Your task to perform on an android device: Open Reddit.com Image 0: 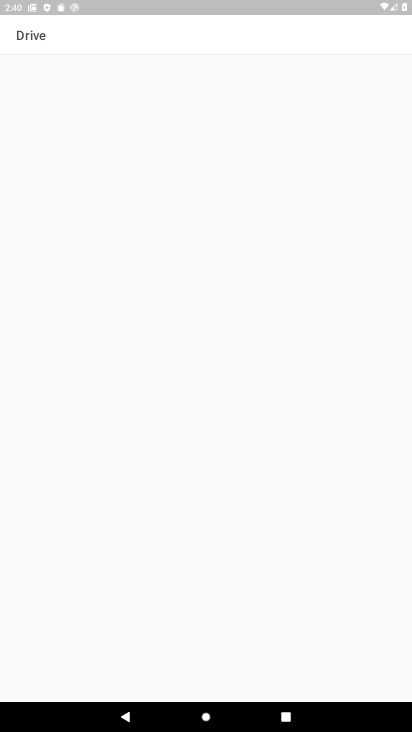
Step 0: press home button
Your task to perform on an android device: Open Reddit.com Image 1: 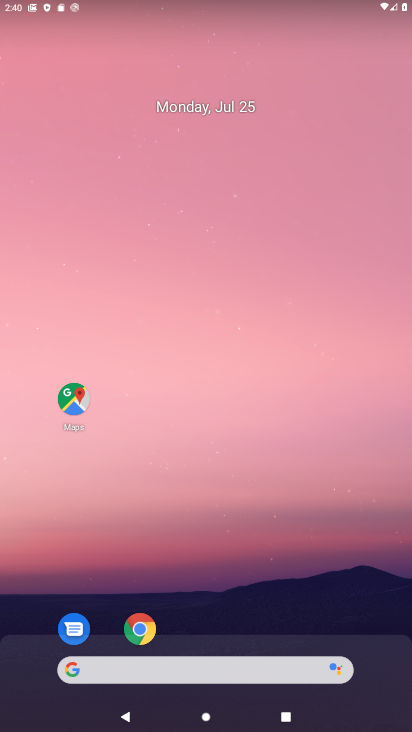
Step 1: click (140, 630)
Your task to perform on an android device: Open Reddit.com Image 2: 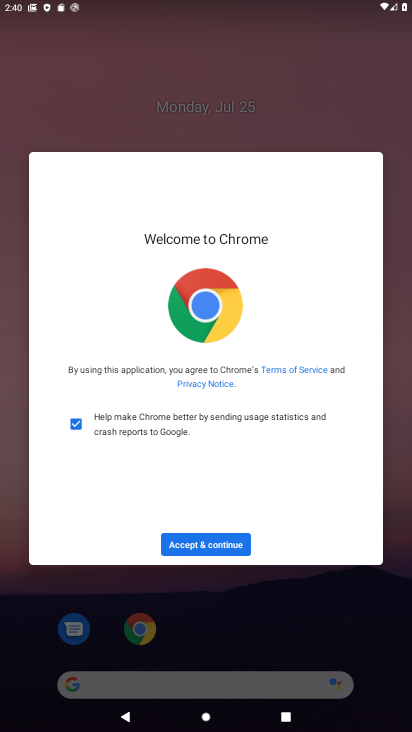
Step 2: click (204, 546)
Your task to perform on an android device: Open Reddit.com Image 3: 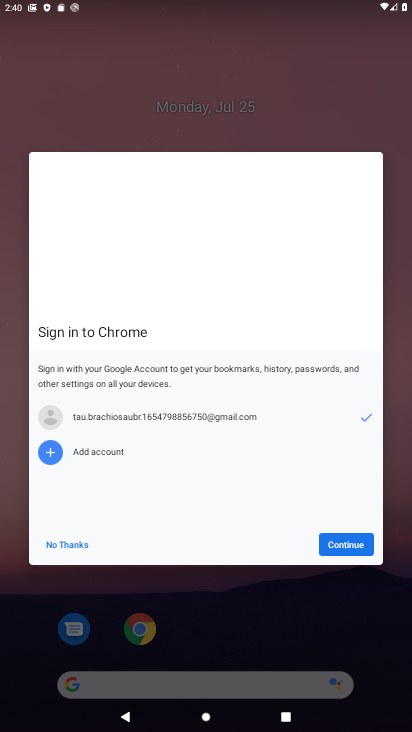
Step 3: click (334, 542)
Your task to perform on an android device: Open Reddit.com Image 4: 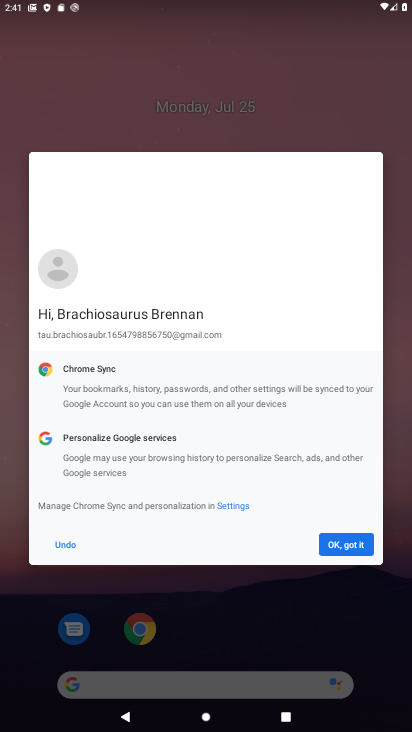
Step 4: click (354, 548)
Your task to perform on an android device: Open Reddit.com Image 5: 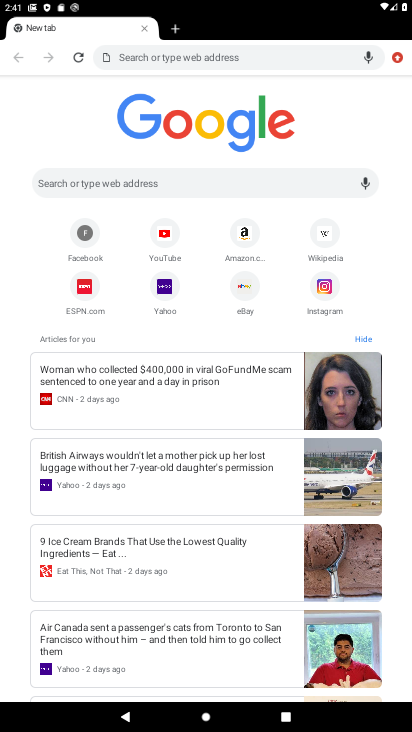
Step 5: click (222, 183)
Your task to perform on an android device: Open Reddit.com Image 6: 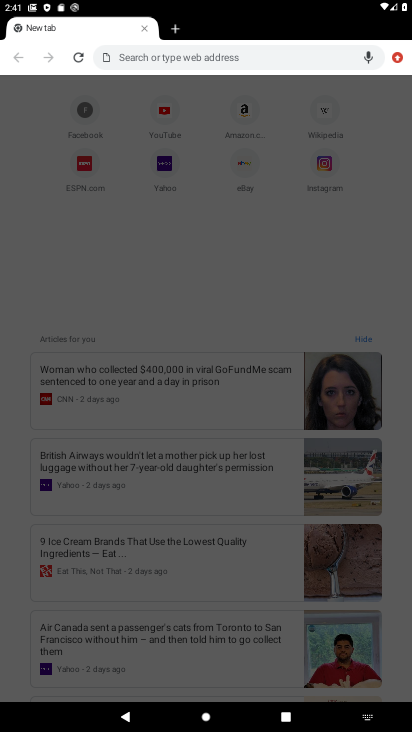
Step 6: type "reddit.com"
Your task to perform on an android device: Open Reddit.com Image 7: 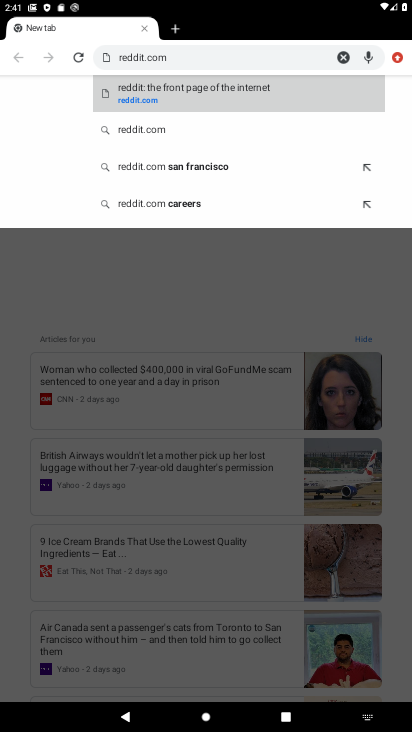
Step 7: click (317, 99)
Your task to perform on an android device: Open Reddit.com Image 8: 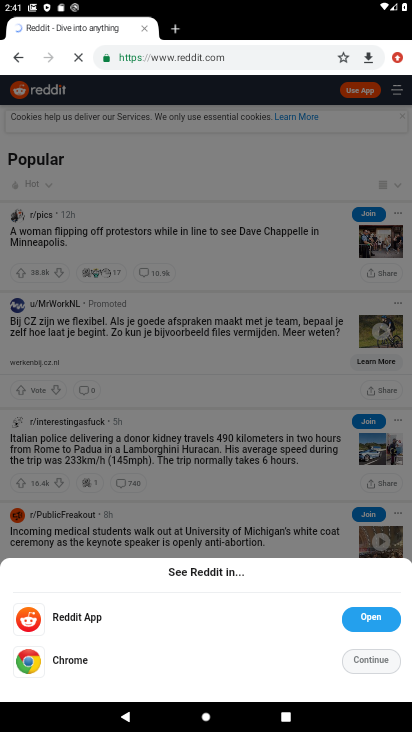
Step 8: task complete